Your task to perform on an android device: Show me productivity apps on the Play Store Image 0: 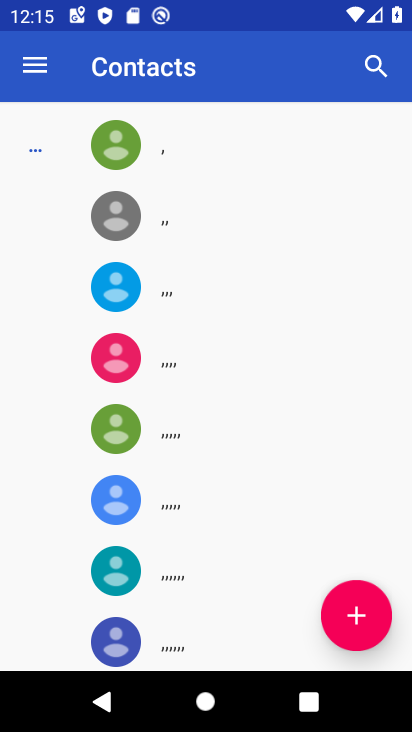
Step 0: press home button
Your task to perform on an android device: Show me productivity apps on the Play Store Image 1: 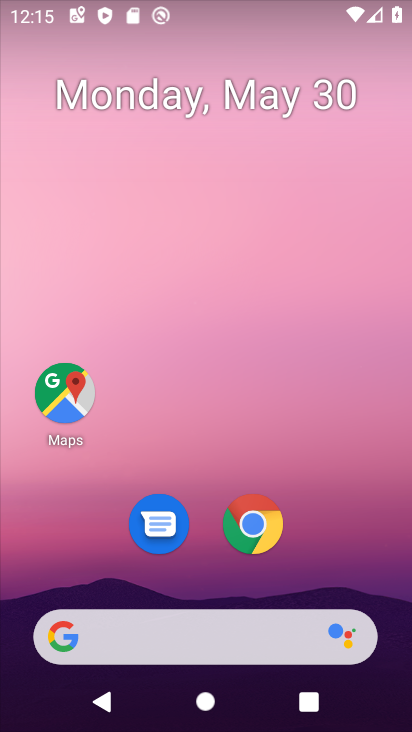
Step 1: drag from (215, 437) to (236, 6)
Your task to perform on an android device: Show me productivity apps on the Play Store Image 2: 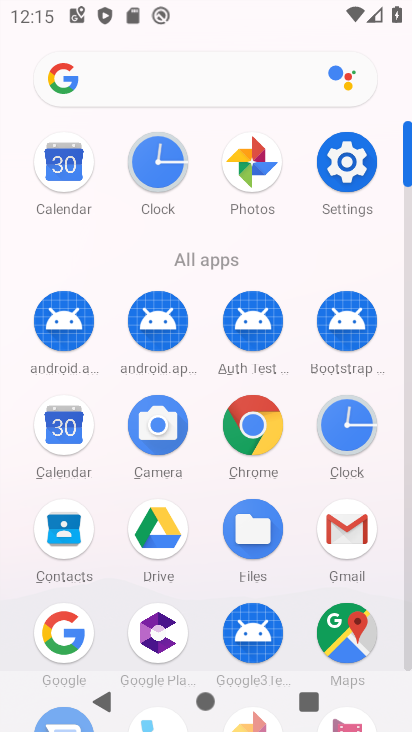
Step 2: drag from (194, 565) to (219, 195)
Your task to perform on an android device: Show me productivity apps on the Play Store Image 3: 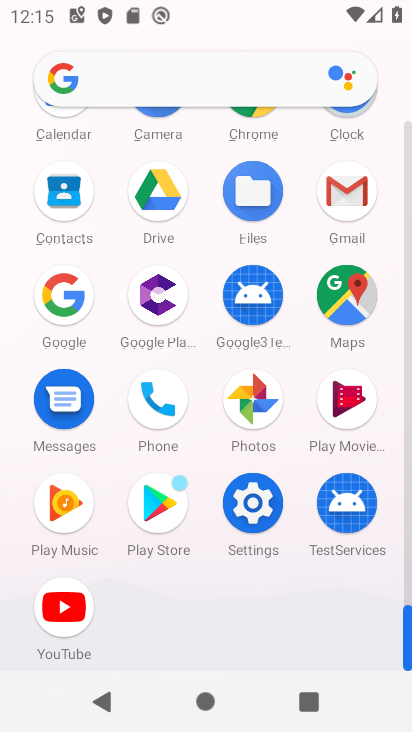
Step 3: click (151, 476)
Your task to perform on an android device: Show me productivity apps on the Play Store Image 4: 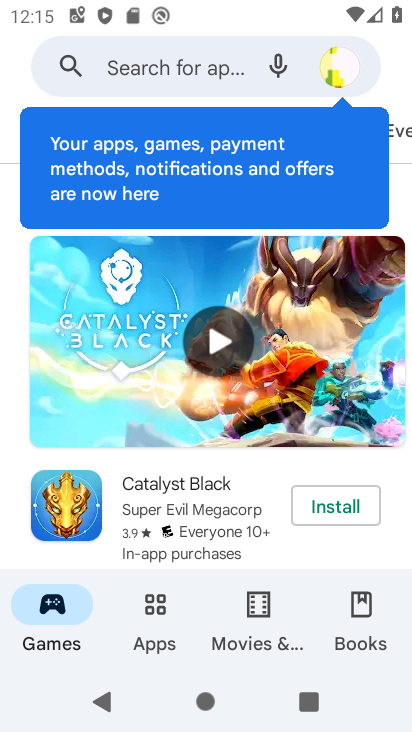
Step 4: click (159, 605)
Your task to perform on an android device: Show me productivity apps on the Play Store Image 5: 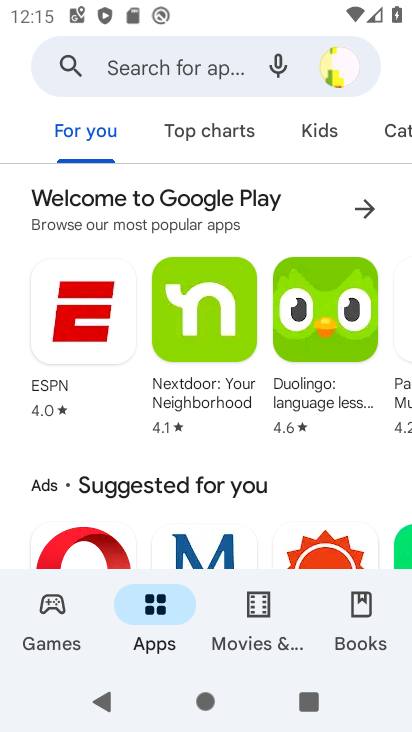
Step 5: click (393, 120)
Your task to perform on an android device: Show me productivity apps on the Play Store Image 6: 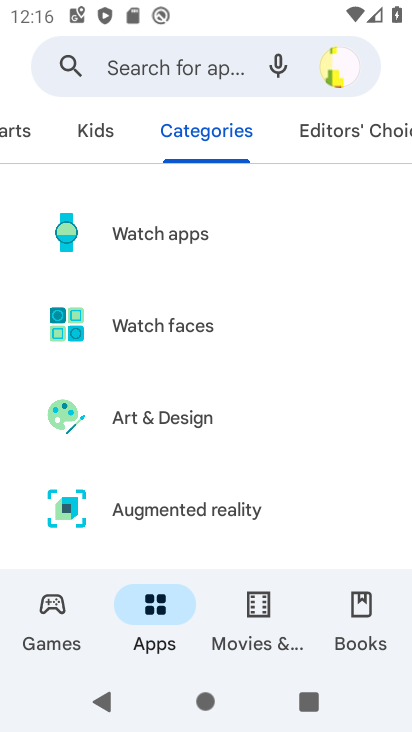
Step 6: drag from (286, 474) to (326, 83)
Your task to perform on an android device: Show me productivity apps on the Play Store Image 7: 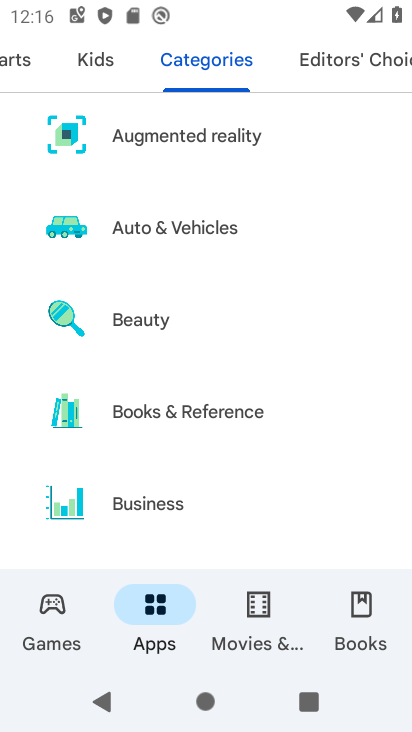
Step 7: drag from (251, 446) to (250, 83)
Your task to perform on an android device: Show me productivity apps on the Play Store Image 8: 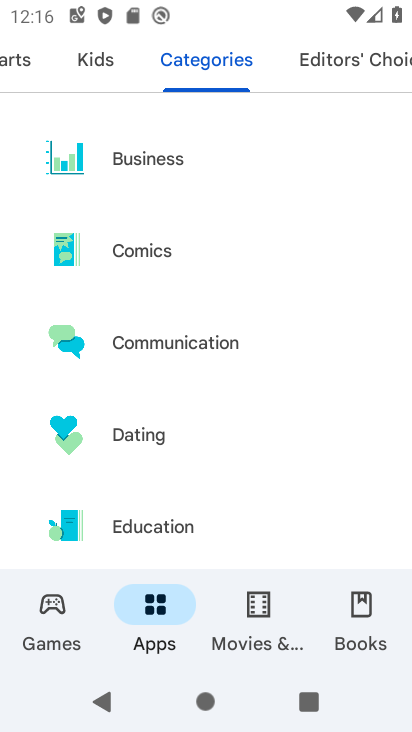
Step 8: drag from (203, 488) to (226, 102)
Your task to perform on an android device: Show me productivity apps on the Play Store Image 9: 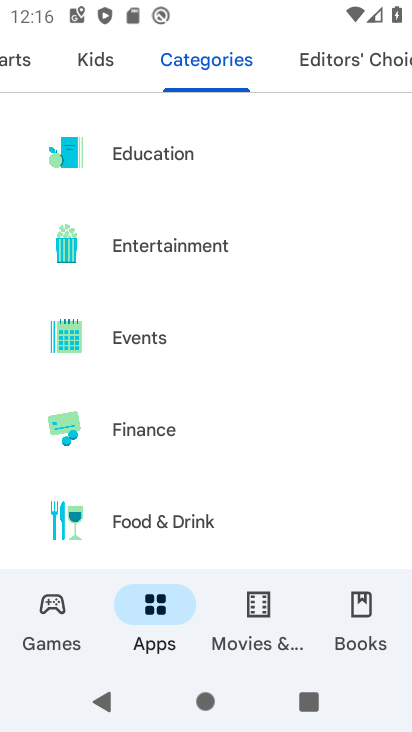
Step 9: drag from (234, 482) to (248, 100)
Your task to perform on an android device: Show me productivity apps on the Play Store Image 10: 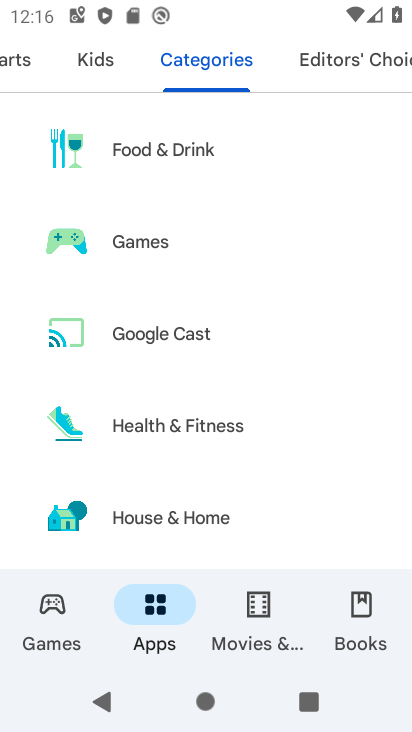
Step 10: drag from (284, 496) to (287, 82)
Your task to perform on an android device: Show me productivity apps on the Play Store Image 11: 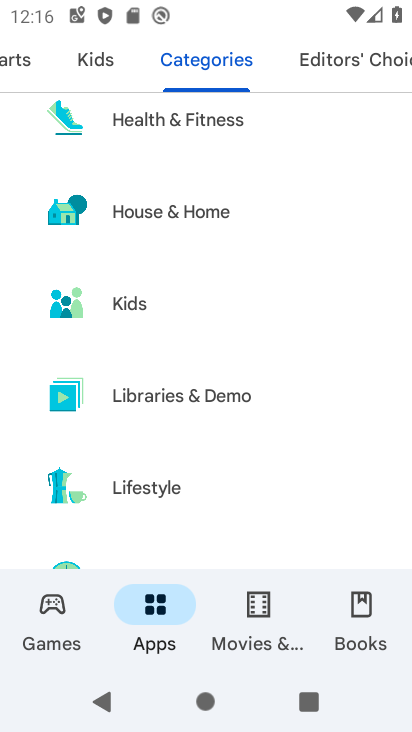
Step 11: drag from (247, 458) to (274, 101)
Your task to perform on an android device: Show me productivity apps on the Play Store Image 12: 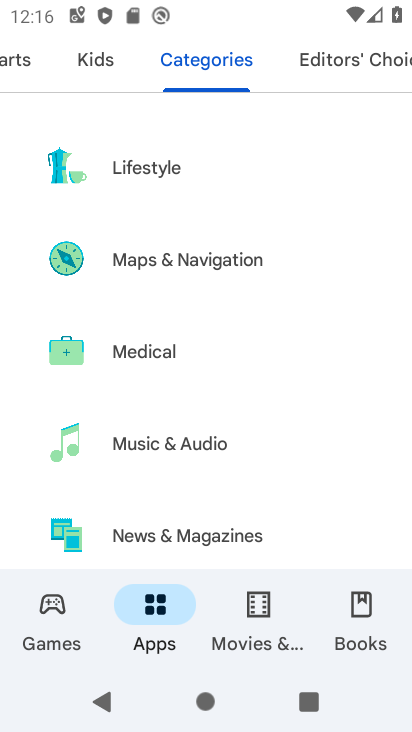
Step 12: drag from (261, 430) to (256, 130)
Your task to perform on an android device: Show me productivity apps on the Play Store Image 13: 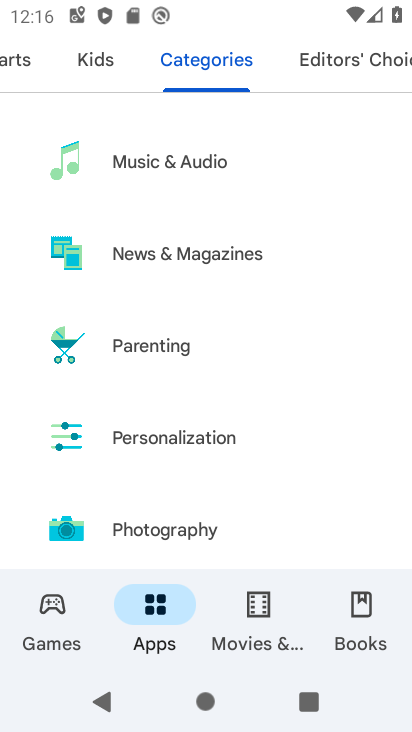
Step 13: drag from (270, 478) to (269, 187)
Your task to perform on an android device: Show me productivity apps on the Play Store Image 14: 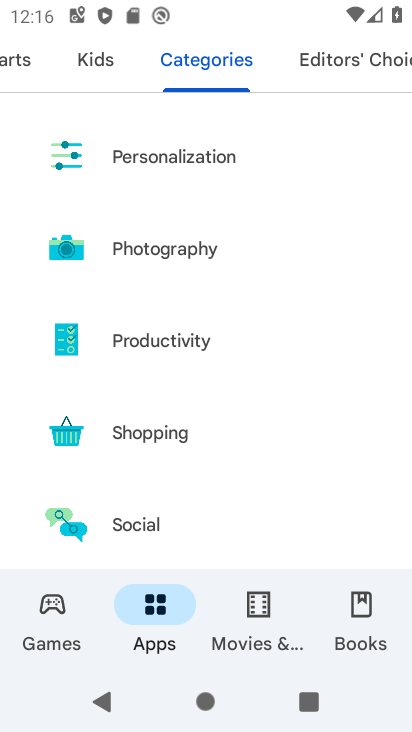
Step 14: click (209, 339)
Your task to perform on an android device: Show me productivity apps on the Play Store Image 15: 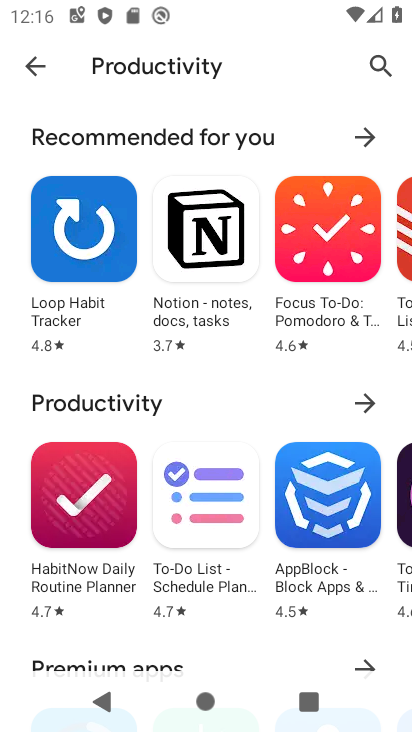
Step 15: click (368, 404)
Your task to perform on an android device: Show me productivity apps on the Play Store Image 16: 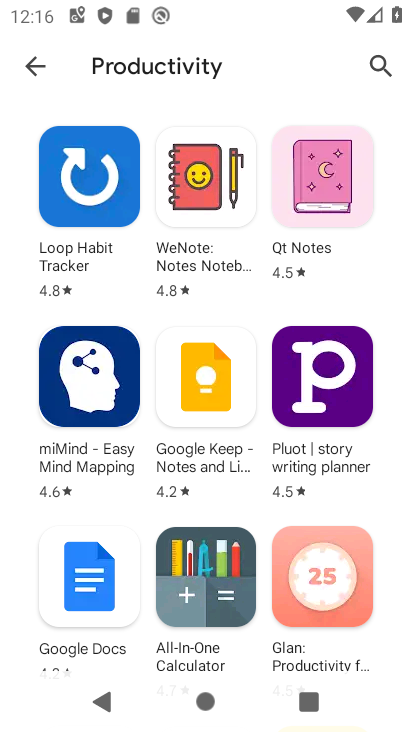
Step 16: task complete